Your task to perform on an android device: Do I have any events this weekend? Image 0: 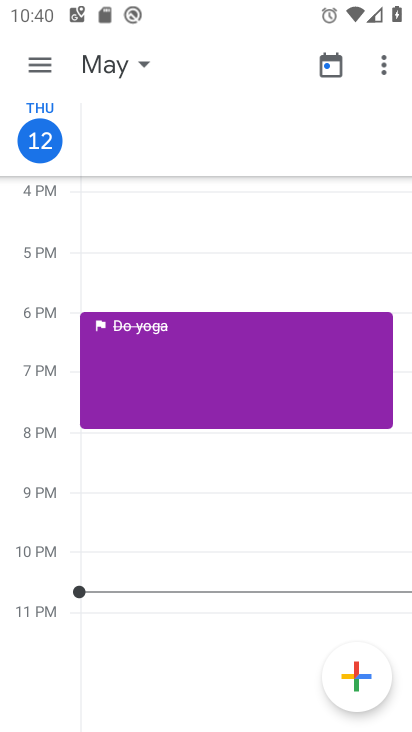
Step 0: press home button
Your task to perform on an android device: Do I have any events this weekend? Image 1: 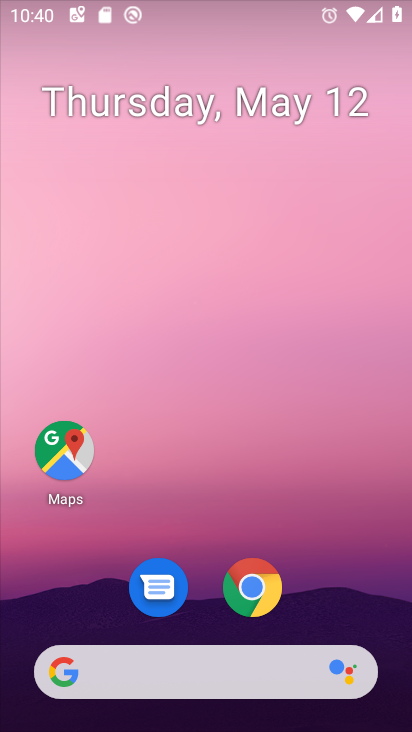
Step 1: drag from (382, 594) to (251, 28)
Your task to perform on an android device: Do I have any events this weekend? Image 2: 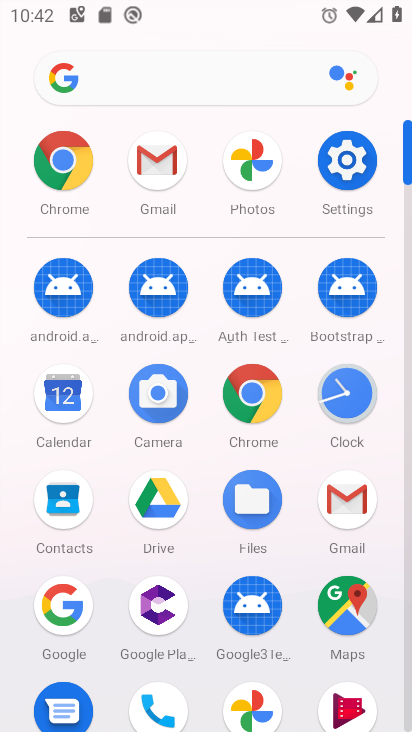
Step 2: click (65, 389)
Your task to perform on an android device: Do I have any events this weekend? Image 3: 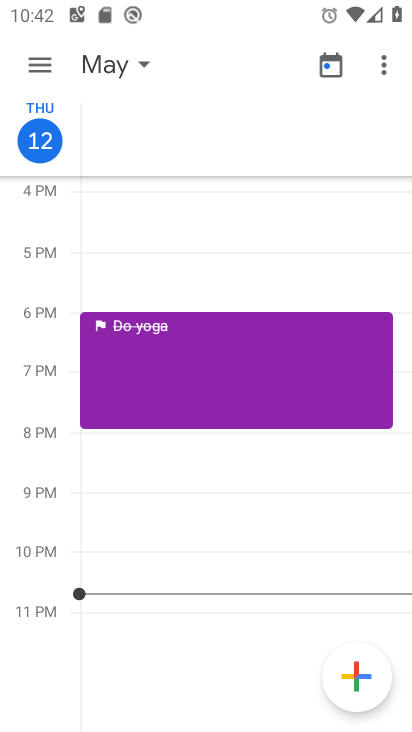
Step 3: click (31, 56)
Your task to perform on an android device: Do I have any events this weekend? Image 4: 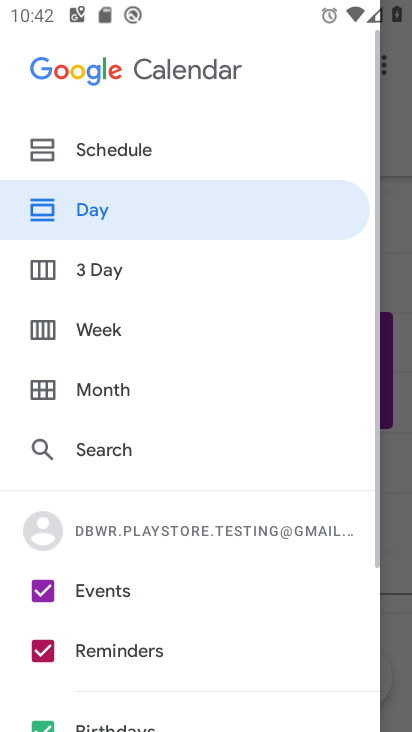
Step 4: click (141, 140)
Your task to perform on an android device: Do I have any events this weekend? Image 5: 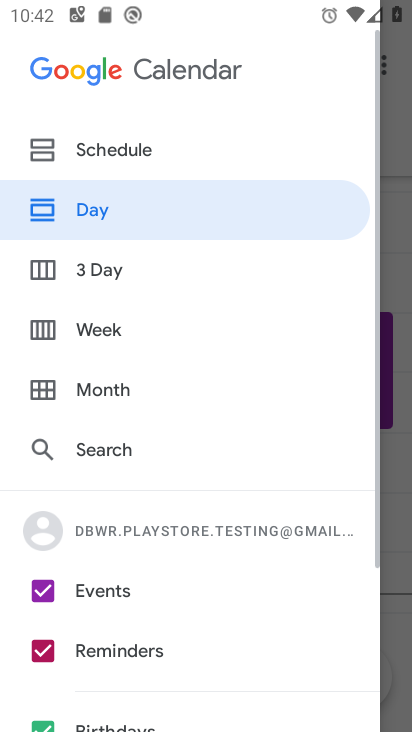
Step 5: click (99, 153)
Your task to perform on an android device: Do I have any events this weekend? Image 6: 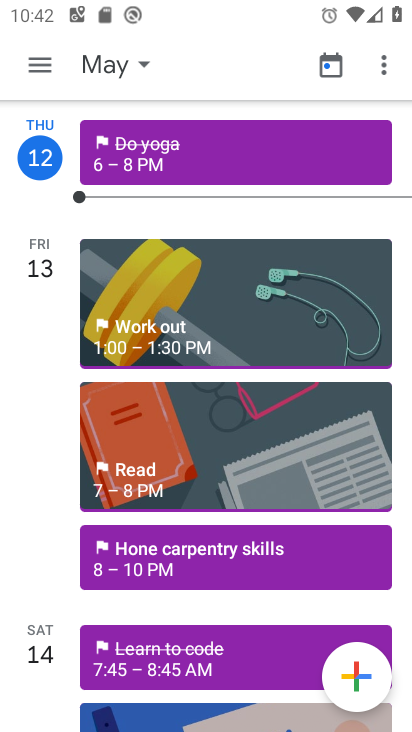
Step 6: task complete